Your task to perform on an android device: change your default location settings in chrome Image 0: 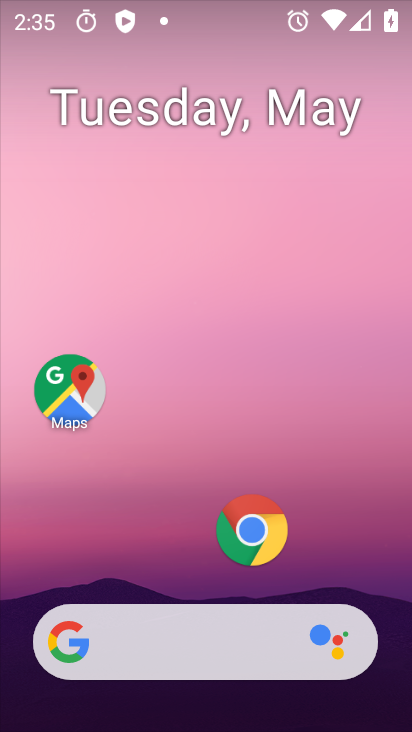
Step 0: drag from (311, 275) to (113, 463)
Your task to perform on an android device: change your default location settings in chrome Image 1: 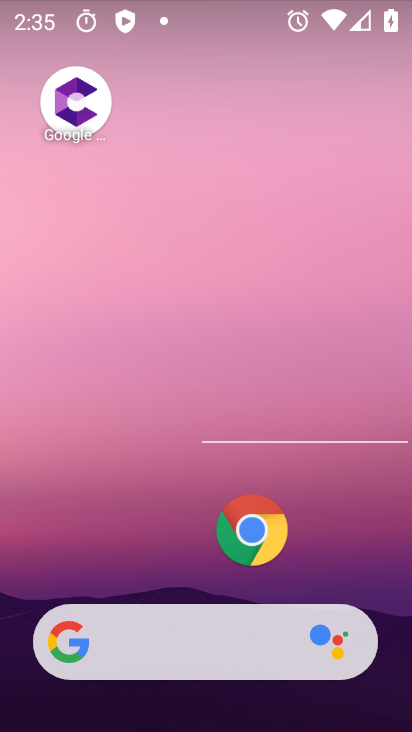
Step 1: click (250, 506)
Your task to perform on an android device: change your default location settings in chrome Image 2: 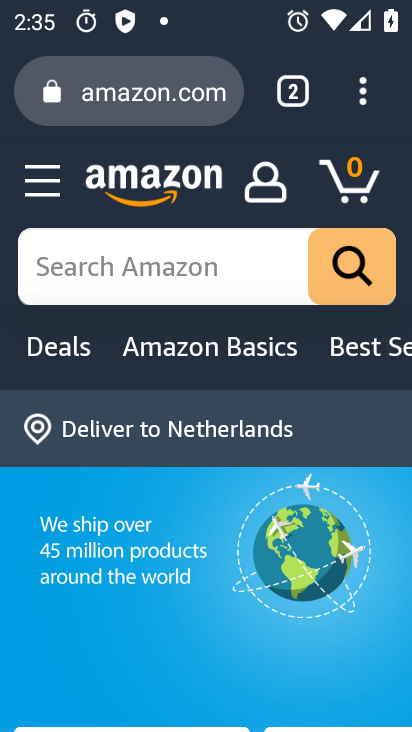
Step 2: click (353, 99)
Your task to perform on an android device: change your default location settings in chrome Image 3: 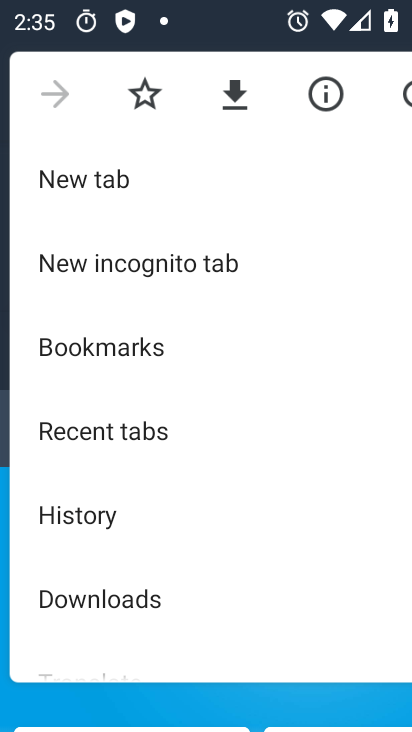
Step 3: drag from (117, 530) to (120, 201)
Your task to perform on an android device: change your default location settings in chrome Image 4: 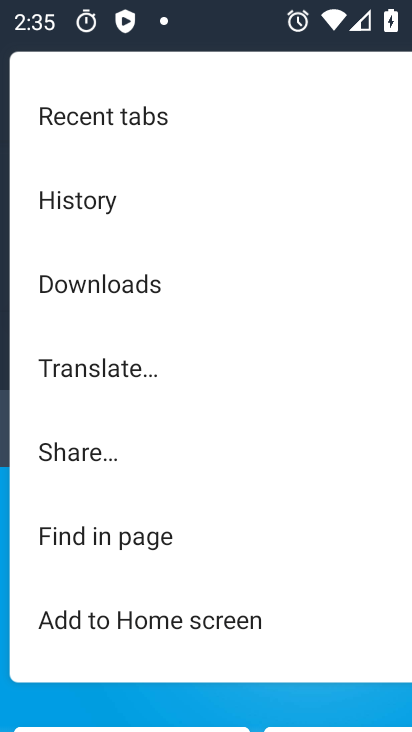
Step 4: drag from (115, 557) to (75, 199)
Your task to perform on an android device: change your default location settings in chrome Image 5: 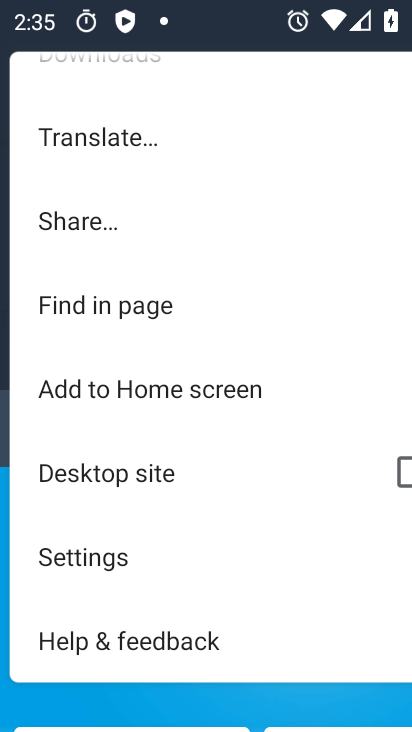
Step 5: click (109, 567)
Your task to perform on an android device: change your default location settings in chrome Image 6: 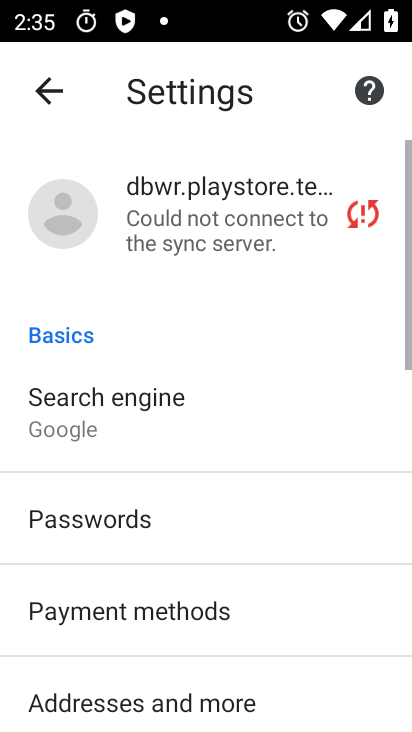
Step 6: drag from (111, 565) to (113, 129)
Your task to perform on an android device: change your default location settings in chrome Image 7: 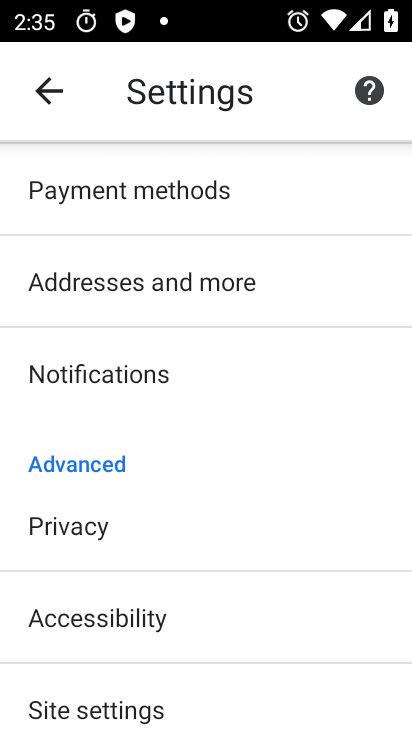
Step 7: drag from (208, 597) to (184, 191)
Your task to perform on an android device: change your default location settings in chrome Image 8: 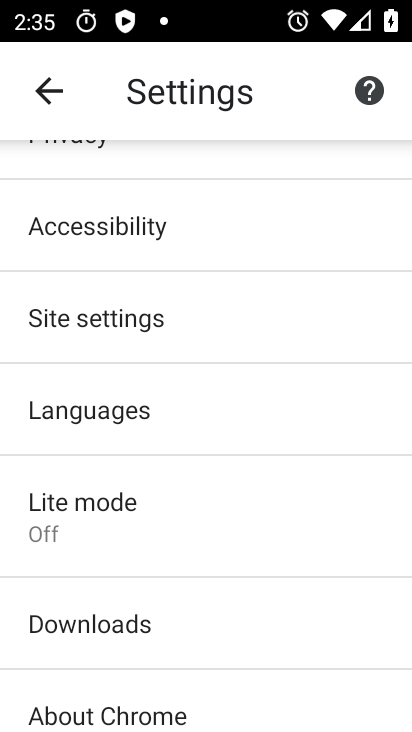
Step 8: drag from (147, 606) to (140, 90)
Your task to perform on an android device: change your default location settings in chrome Image 9: 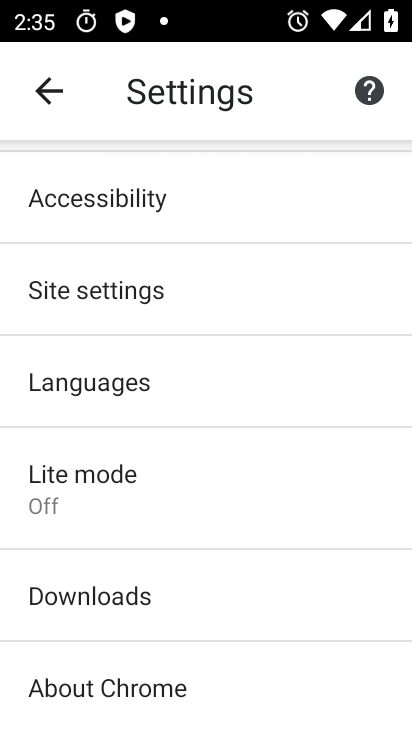
Step 9: drag from (140, 616) to (111, 162)
Your task to perform on an android device: change your default location settings in chrome Image 10: 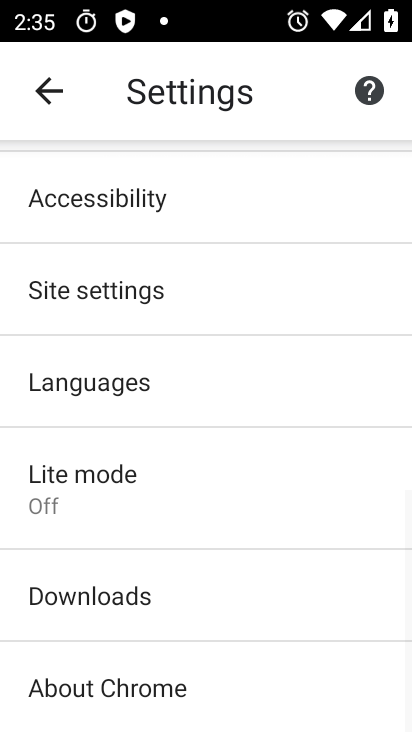
Step 10: drag from (111, 236) to (88, 687)
Your task to perform on an android device: change your default location settings in chrome Image 11: 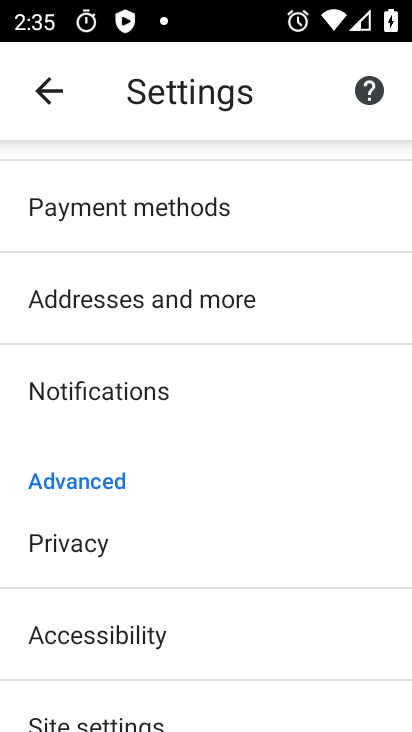
Step 11: drag from (140, 255) to (87, 624)
Your task to perform on an android device: change your default location settings in chrome Image 12: 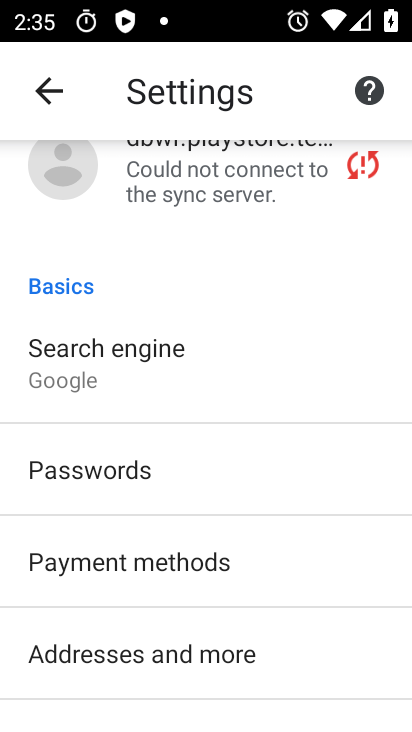
Step 12: click (135, 384)
Your task to perform on an android device: change your default location settings in chrome Image 13: 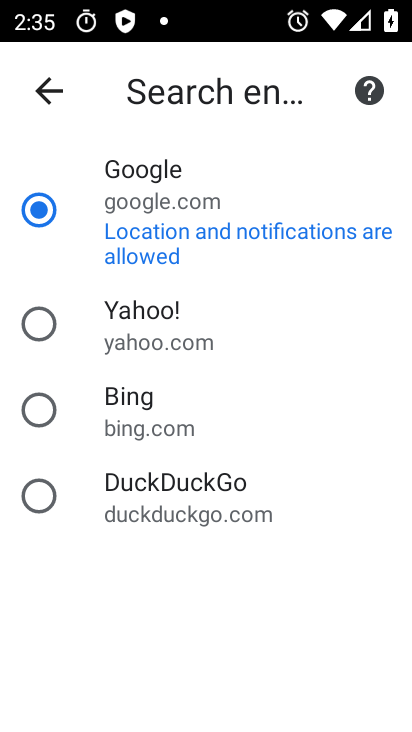
Step 13: click (156, 315)
Your task to perform on an android device: change your default location settings in chrome Image 14: 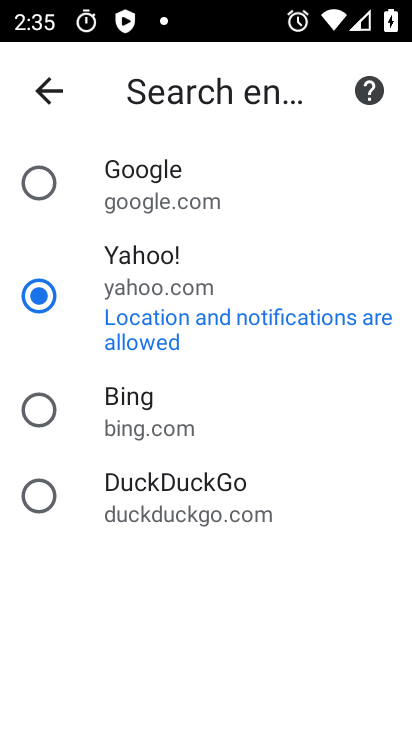
Step 14: click (93, 214)
Your task to perform on an android device: change your default location settings in chrome Image 15: 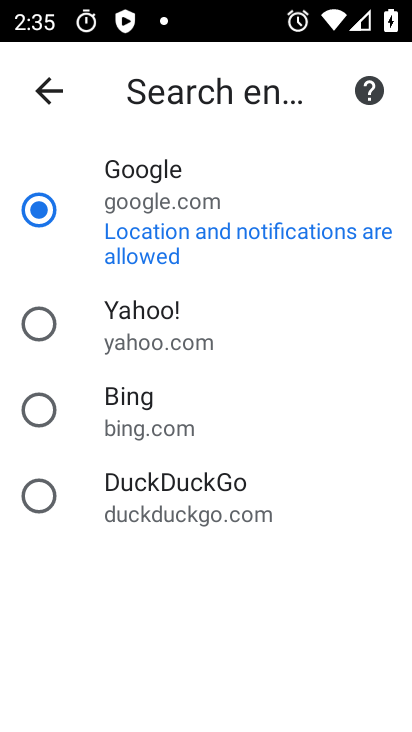
Step 15: task complete